Your task to perform on an android device: Open settings Image 0: 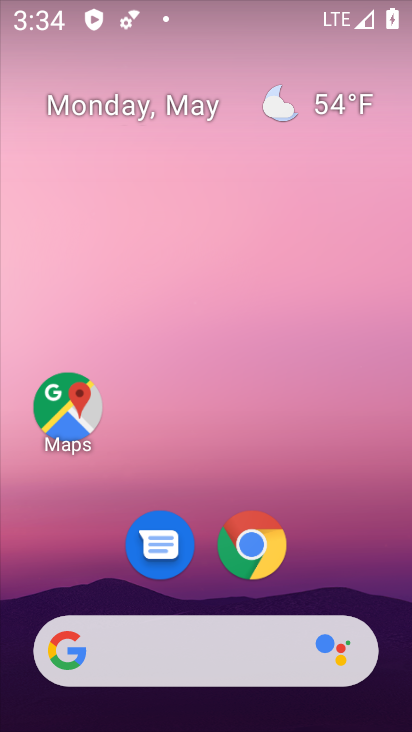
Step 0: drag from (396, 650) to (284, 145)
Your task to perform on an android device: Open settings Image 1: 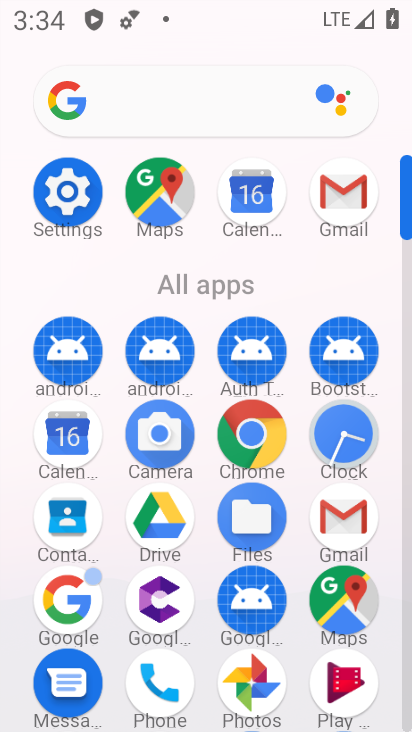
Step 1: click (409, 702)
Your task to perform on an android device: Open settings Image 2: 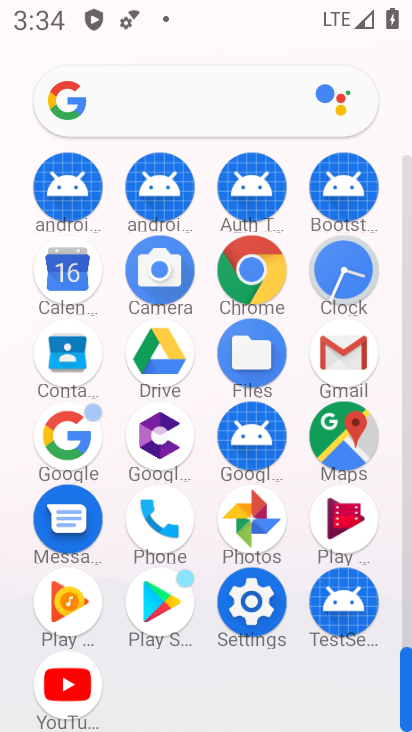
Step 2: click (246, 598)
Your task to perform on an android device: Open settings Image 3: 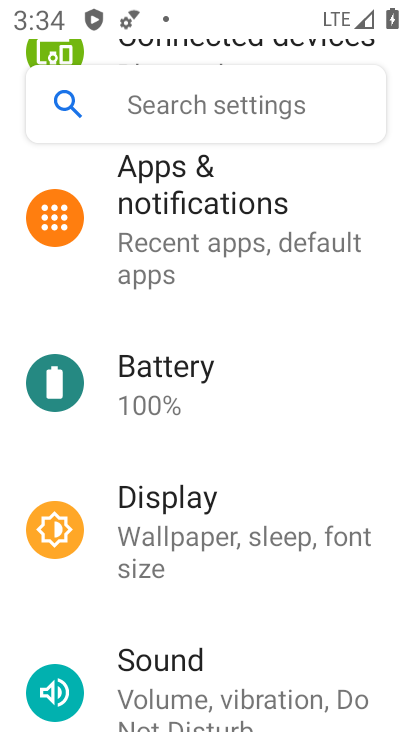
Step 3: task complete